Your task to perform on an android device: add a contact Image 0: 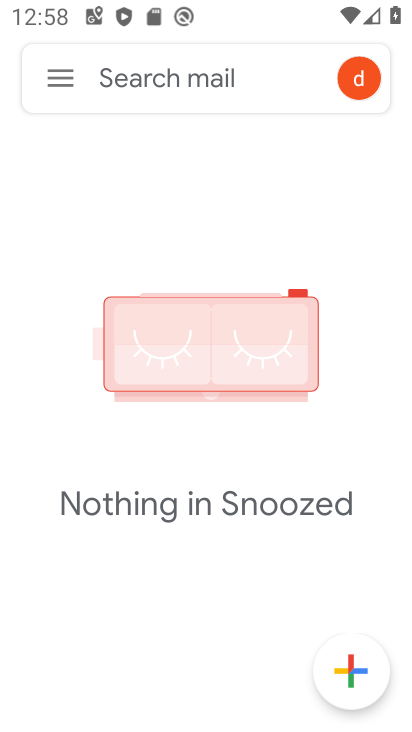
Step 0: press home button
Your task to perform on an android device: add a contact Image 1: 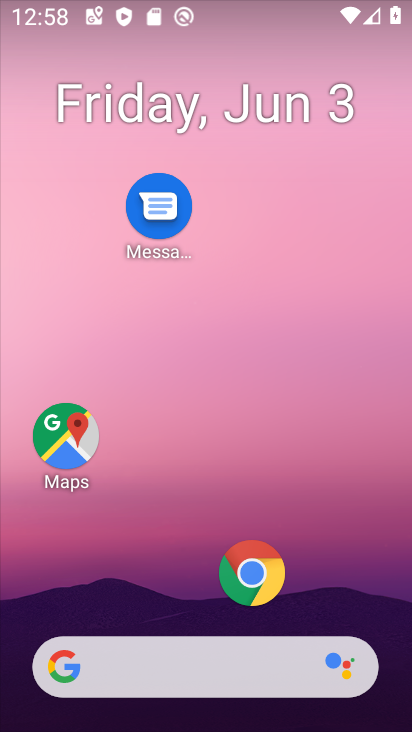
Step 1: drag from (145, 727) to (156, 91)
Your task to perform on an android device: add a contact Image 2: 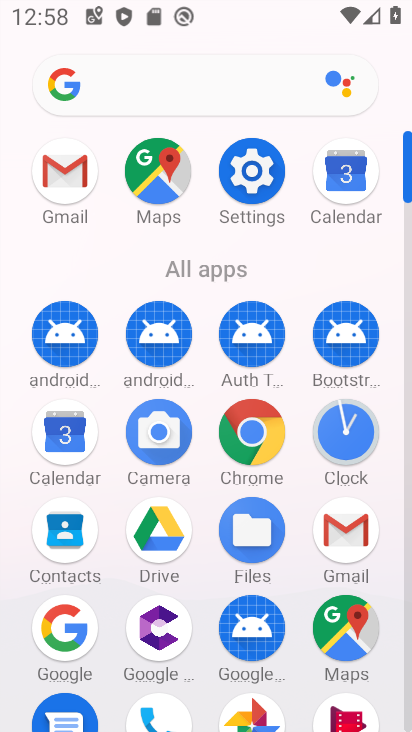
Step 2: click (68, 540)
Your task to perform on an android device: add a contact Image 3: 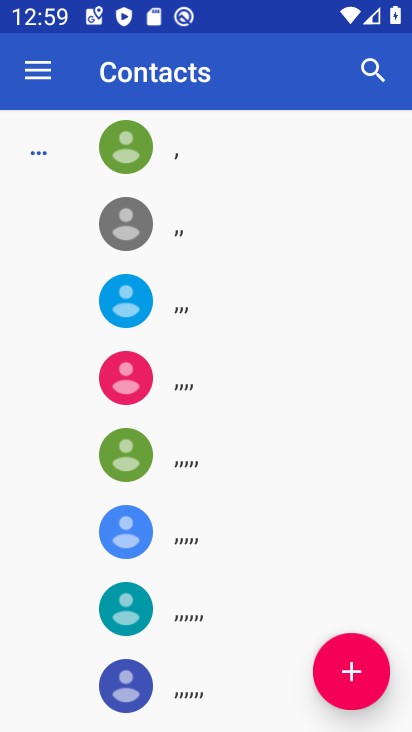
Step 3: click (350, 678)
Your task to perform on an android device: add a contact Image 4: 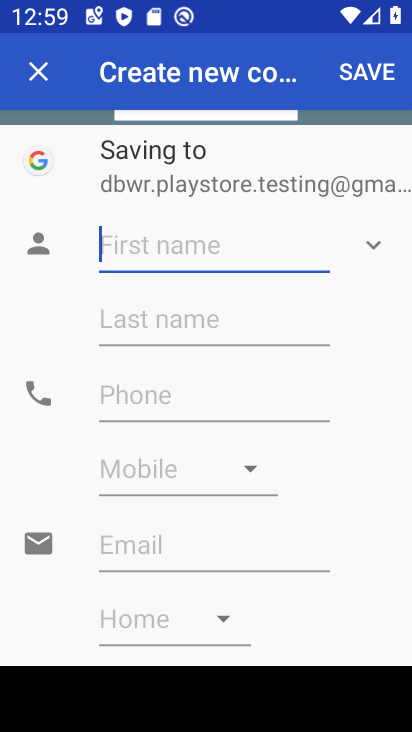
Step 4: type "kjhskhgh"
Your task to perform on an android device: add a contact Image 5: 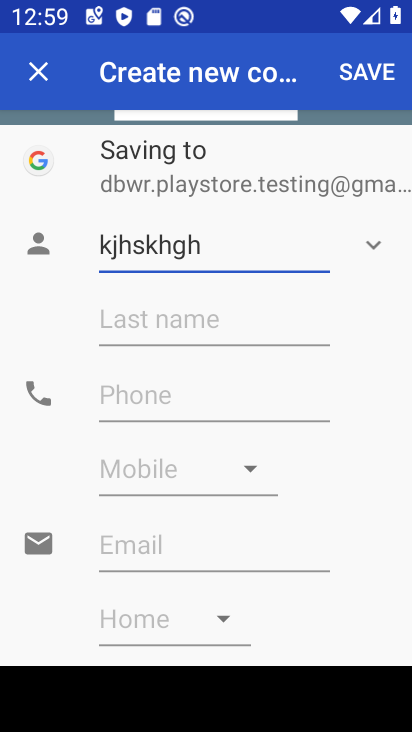
Step 5: click (186, 400)
Your task to perform on an android device: add a contact Image 6: 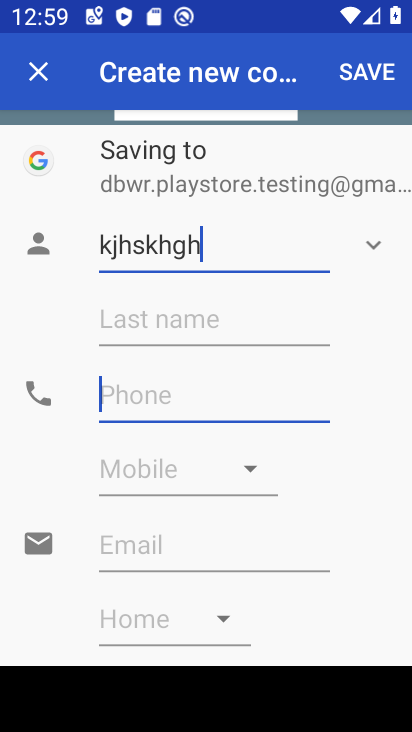
Step 6: click (186, 400)
Your task to perform on an android device: add a contact Image 7: 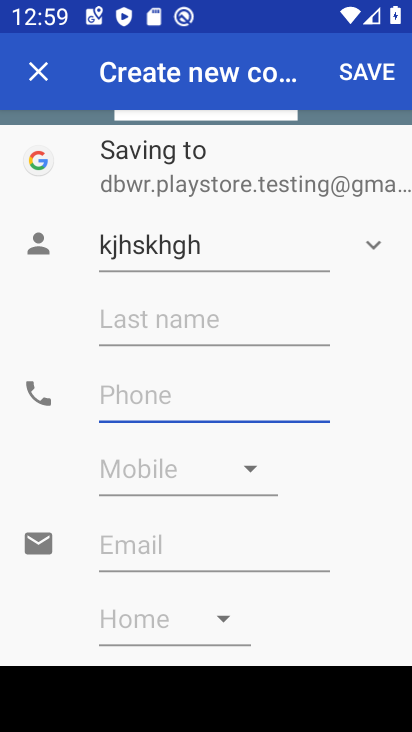
Step 7: type "9876253416"
Your task to perform on an android device: add a contact Image 8: 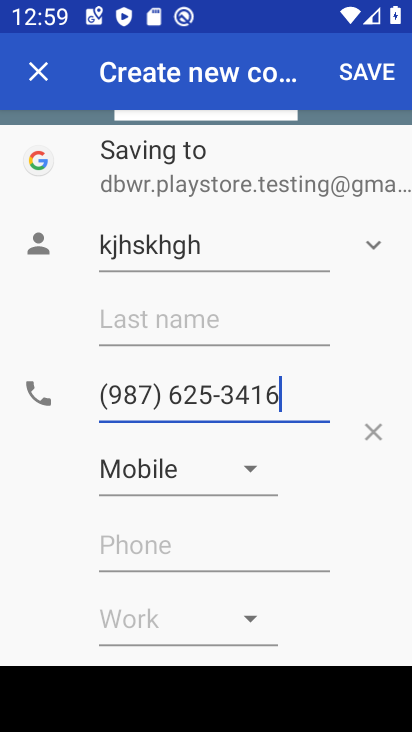
Step 8: click (364, 77)
Your task to perform on an android device: add a contact Image 9: 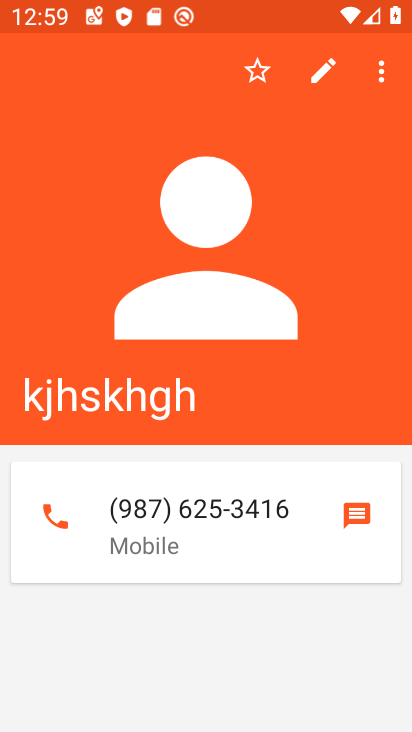
Step 9: task complete